Your task to perform on an android device: uninstall "Speedtest by Ookla" Image 0: 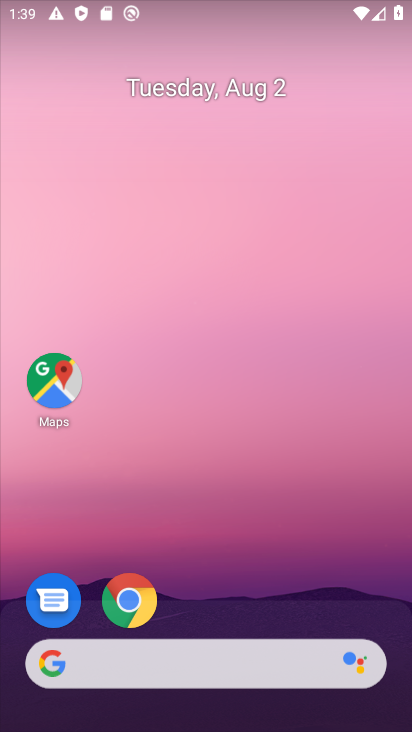
Step 0: drag from (243, 582) to (289, 13)
Your task to perform on an android device: uninstall "Speedtest by Ookla" Image 1: 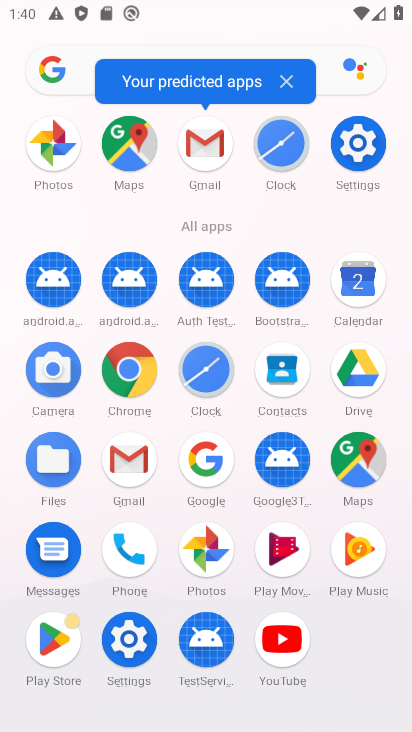
Step 1: click (58, 644)
Your task to perform on an android device: uninstall "Speedtest by Ookla" Image 2: 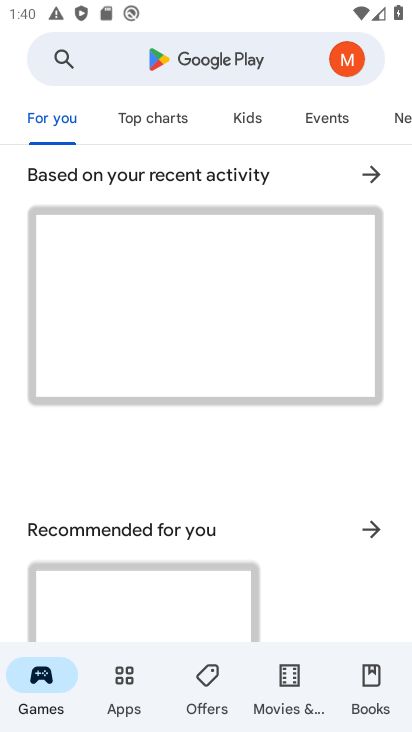
Step 2: click (222, 66)
Your task to perform on an android device: uninstall "Speedtest by Ookla" Image 3: 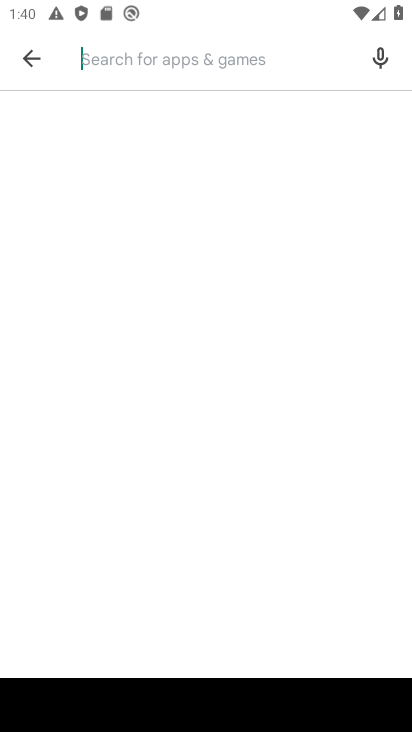
Step 3: type "sprrdtest by ookla"
Your task to perform on an android device: uninstall "Speedtest by Ookla" Image 4: 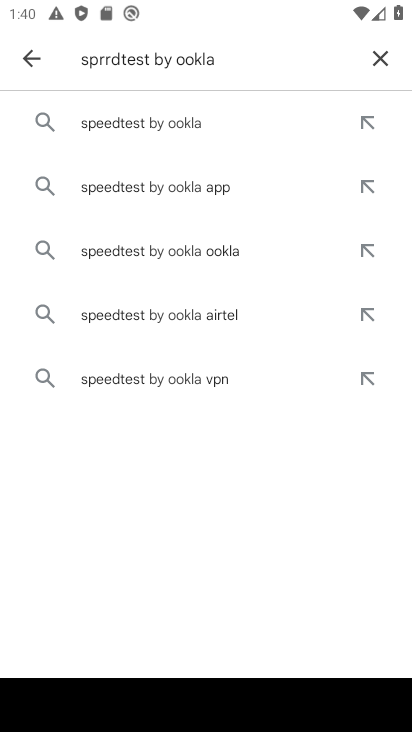
Step 4: click (119, 112)
Your task to perform on an android device: uninstall "Speedtest by Ookla" Image 5: 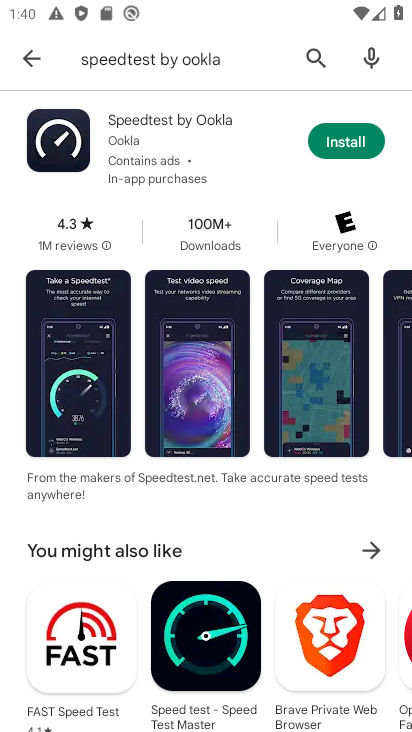
Step 5: click (131, 138)
Your task to perform on an android device: uninstall "Speedtest by Ookla" Image 6: 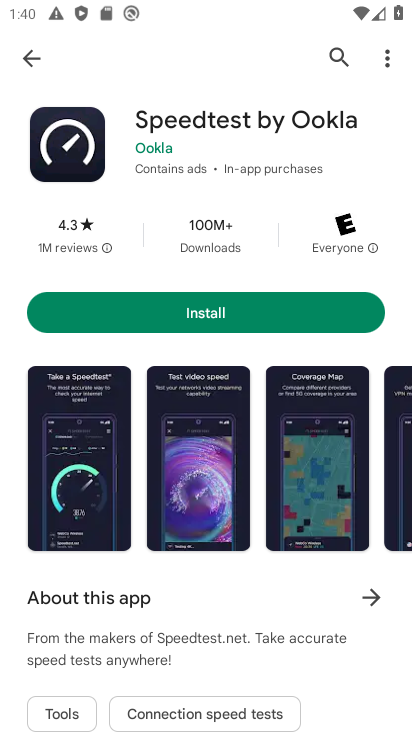
Step 6: task complete